Your task to perform on an android device: move an email to a new category in the gmail app Image 0: 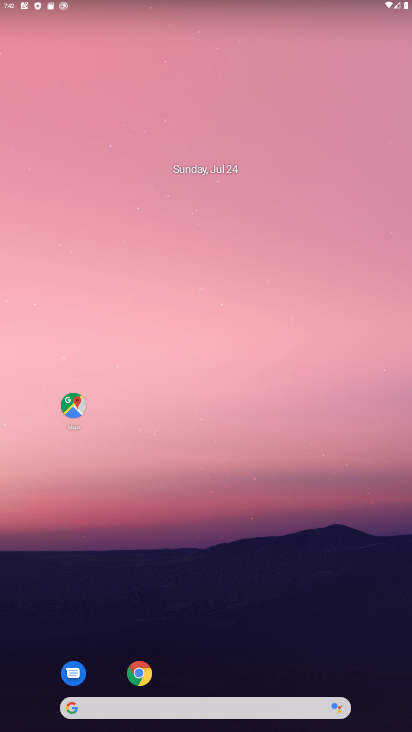
Step 0: drag from (190, 661) to (221, 210)
Your task to perform on an android device: move an email to a new category in the gmail app Image 1: 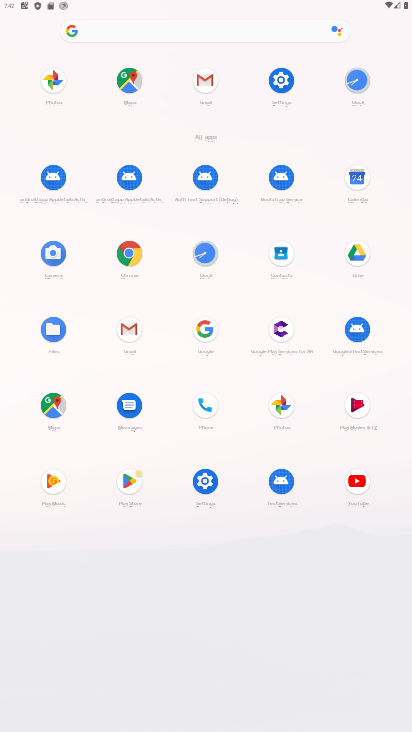
Step 1: click (127, 325)
Your task to perform on an android device: move an email to a new category in the gmail app Image 2: 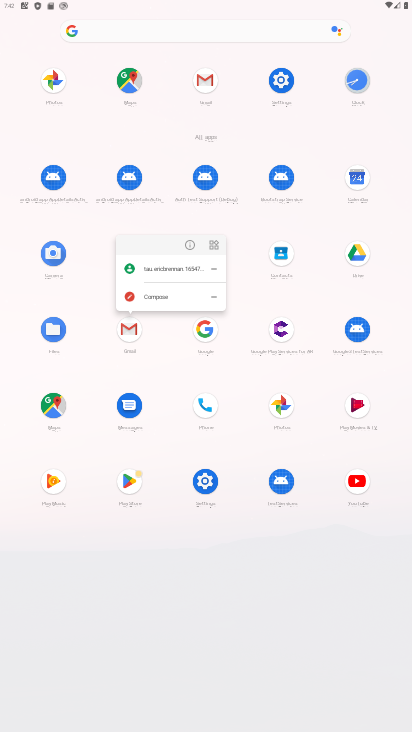
Step 2: click (187, 246)
Your task to perform on an android device: move an email to a new category in the gmail app Image 3: 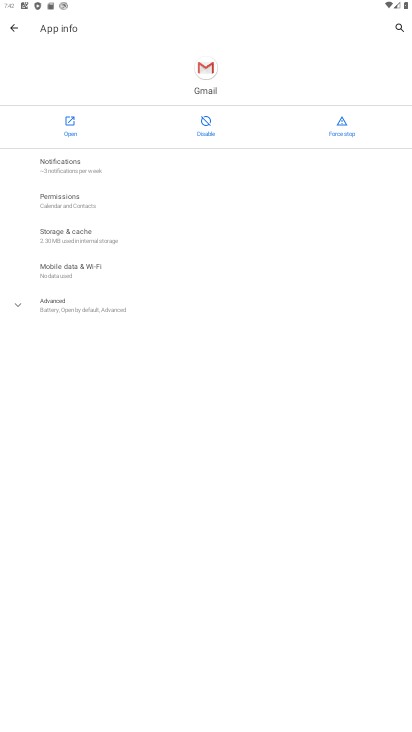
Step 3: click (68, 121)
Your task to perform on an android device: move an email to a new category in the gmail app Image 4: 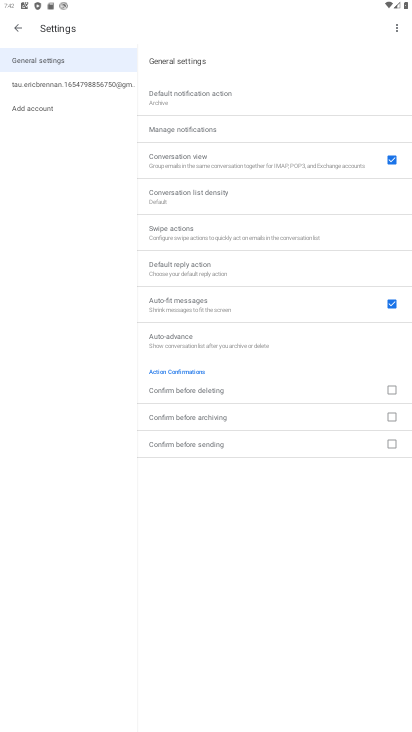
Step 4: click (21, 26)
Your task to perform on an android device: move an email to a new category in the gmail app Image 5: 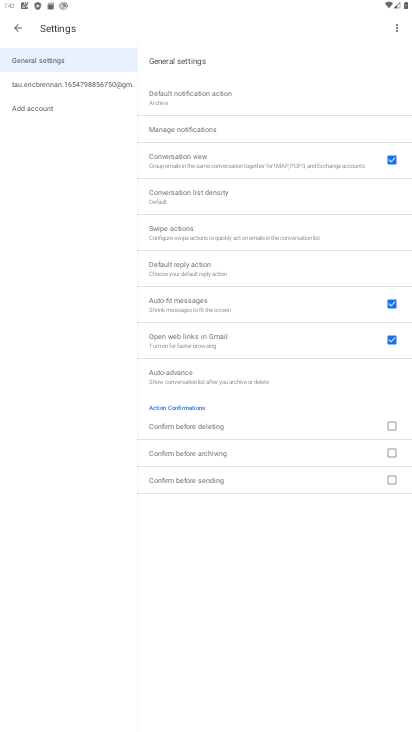
Step 5: click (13, 27)
Your task to perform on an android device: move an email to a new category in the gmail app Image 6: 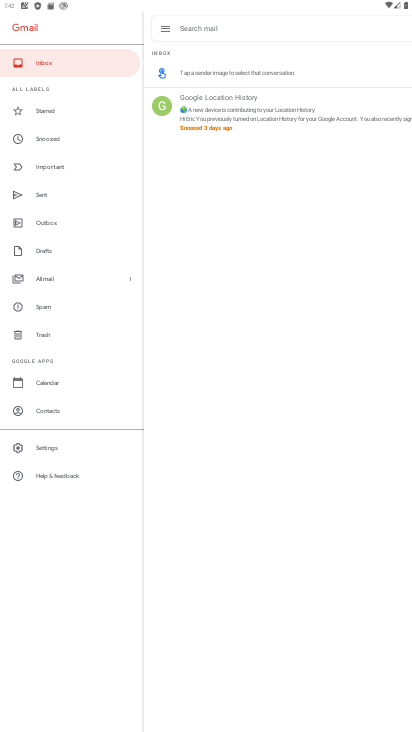
Step 6: click (12, 63)
Your task to perform on an android device: move an email to a new category in the gmail app Image 7: 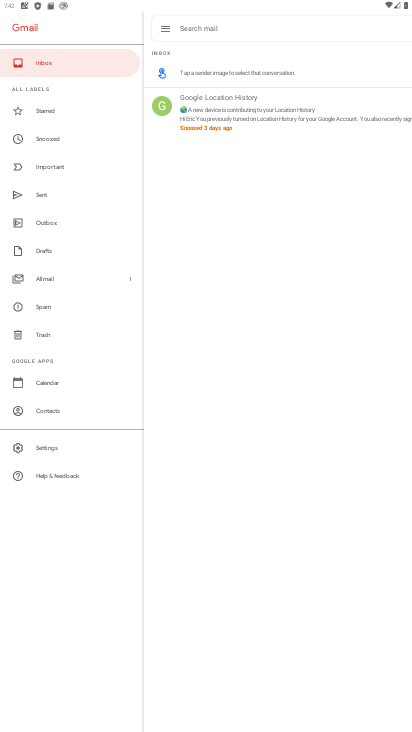
Step 7: click (224, 109)
Your task to perform on an android device: move an email to a new category in the gmail app Image 8: 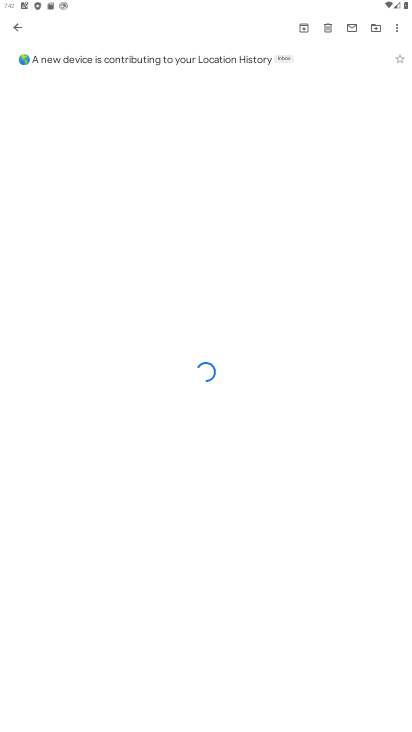
Step 8: click (394, 54)
Your task to perform on an android device: move an email to a new category in the gmail app Image 9: 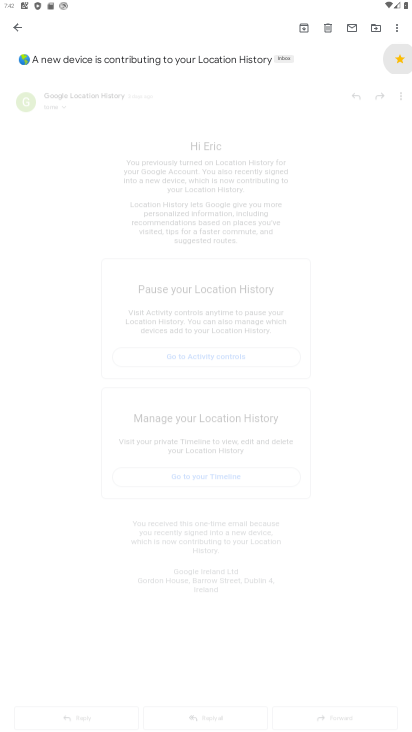
Step 9: task complete